Your task to perform on an android device: allow cookies in the chrome app Image 0: 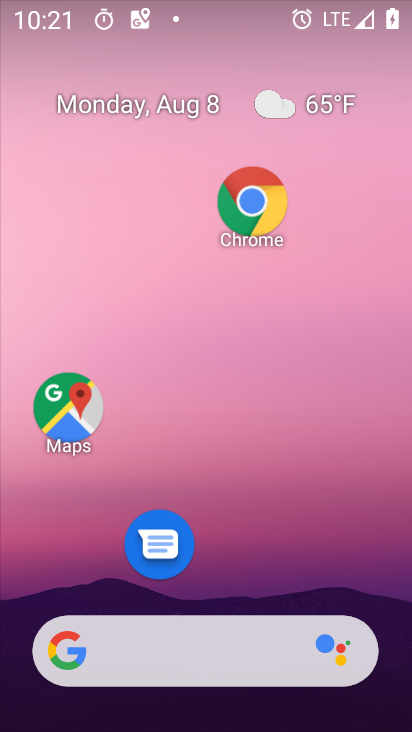
Step 0: press home button
Your task to perform on an android device: allow cookies in the chrome app Image 1: 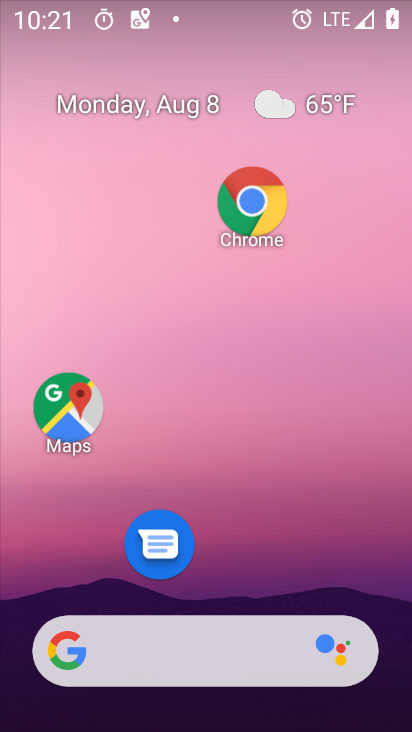
Step 1: drag from (229, 581) to (207, 70)
Your task to perform on an android device: allow cookies in the chrome app Image 2: 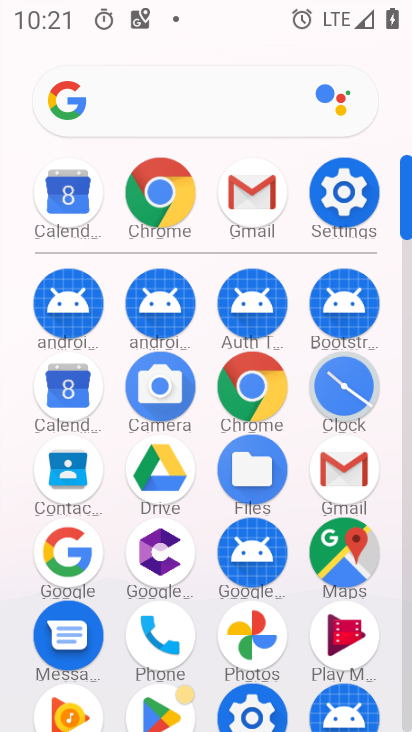
Step 2: click (155, 184)
Your task to perform on an android device: allow cookies in the chrome app Image 3: 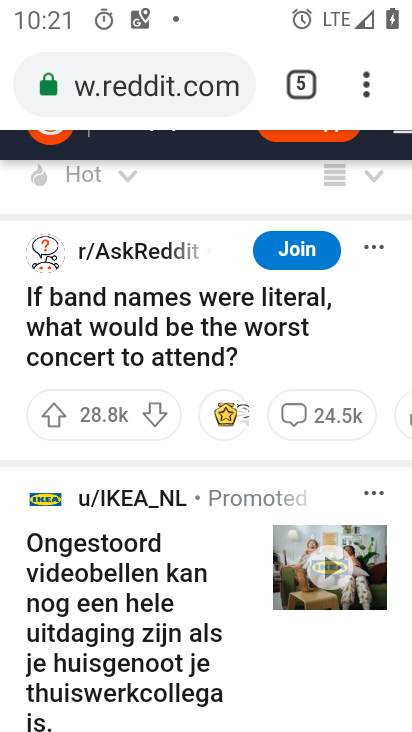
Step 3: click (365, 83)
Your task to perform on an android device: allow cookies in the chrome app Image 4: 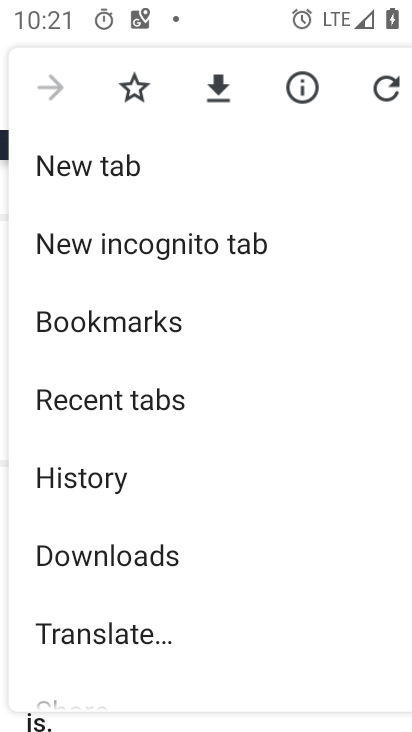
Step 4: drag from (203, 644) to (236, 163)
Your task to perform on an android device: allow cookies in the chrome app Image 5: 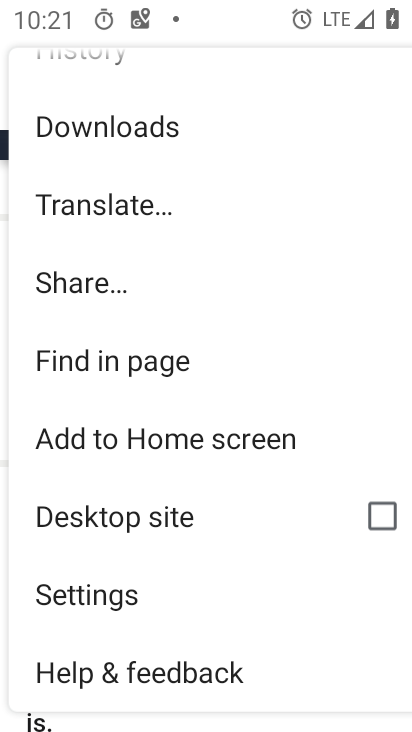
Step 5: click (154, 590)
Your task to perform on an android device: allow cookies in the chrome app Image 6: 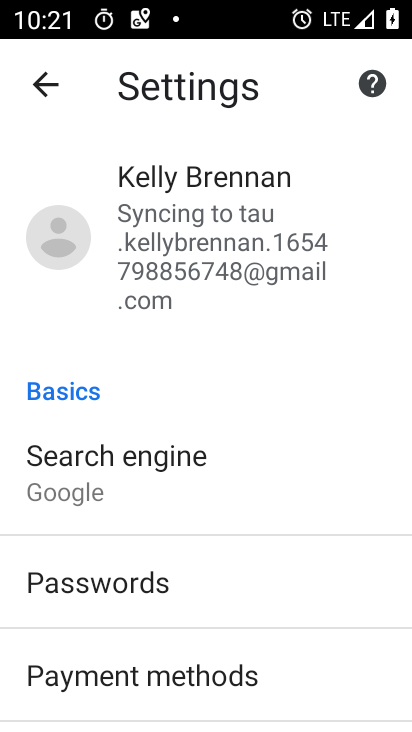
Step 6: drag from (283, 694) to (276, 130)
Your task to perform on an android device: allow cookies in the chrome app Image 7: 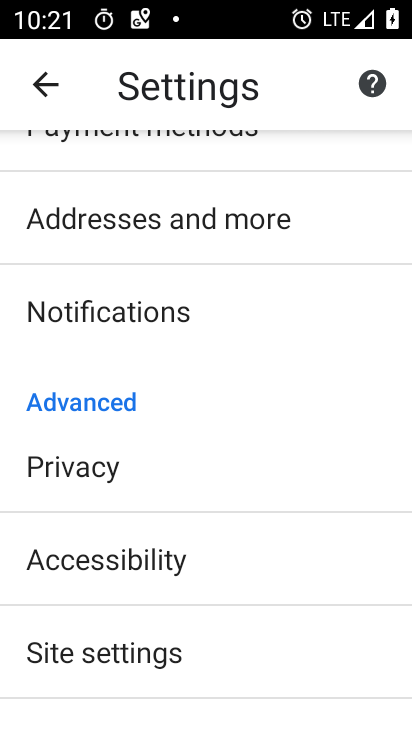
Step 7: click (194, 648)
Your task to perform on an android device: allow cookies in the chrome app Image 8: 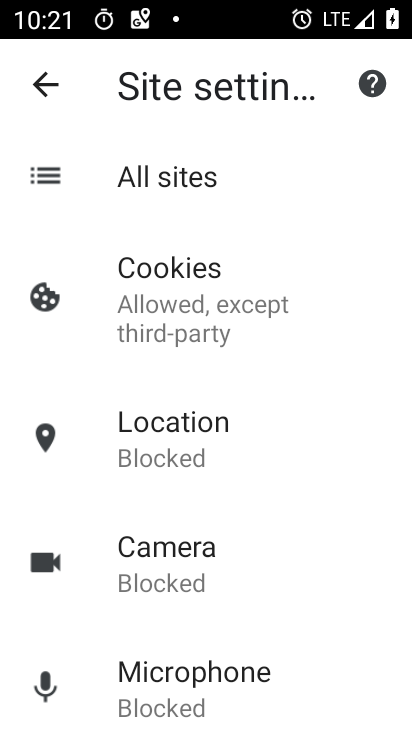
Step 8: click (92, 294)
Your task to perform on an android device: allow cookies in the chrome app Image 9: 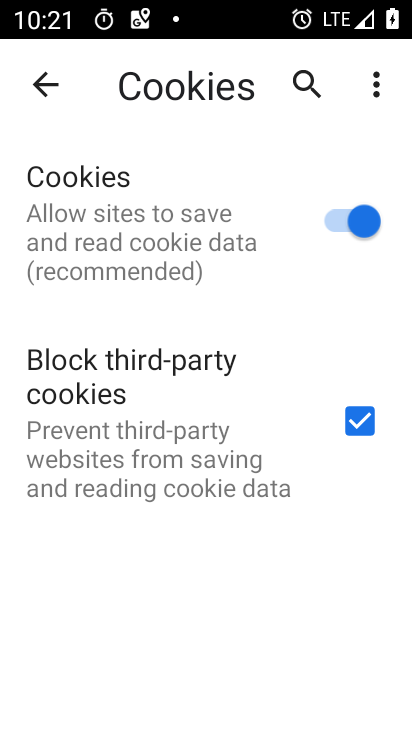
Step 9: task complete